Your task to perform on an android device: read, delete, or share a saved page in the chrome app Image 0: 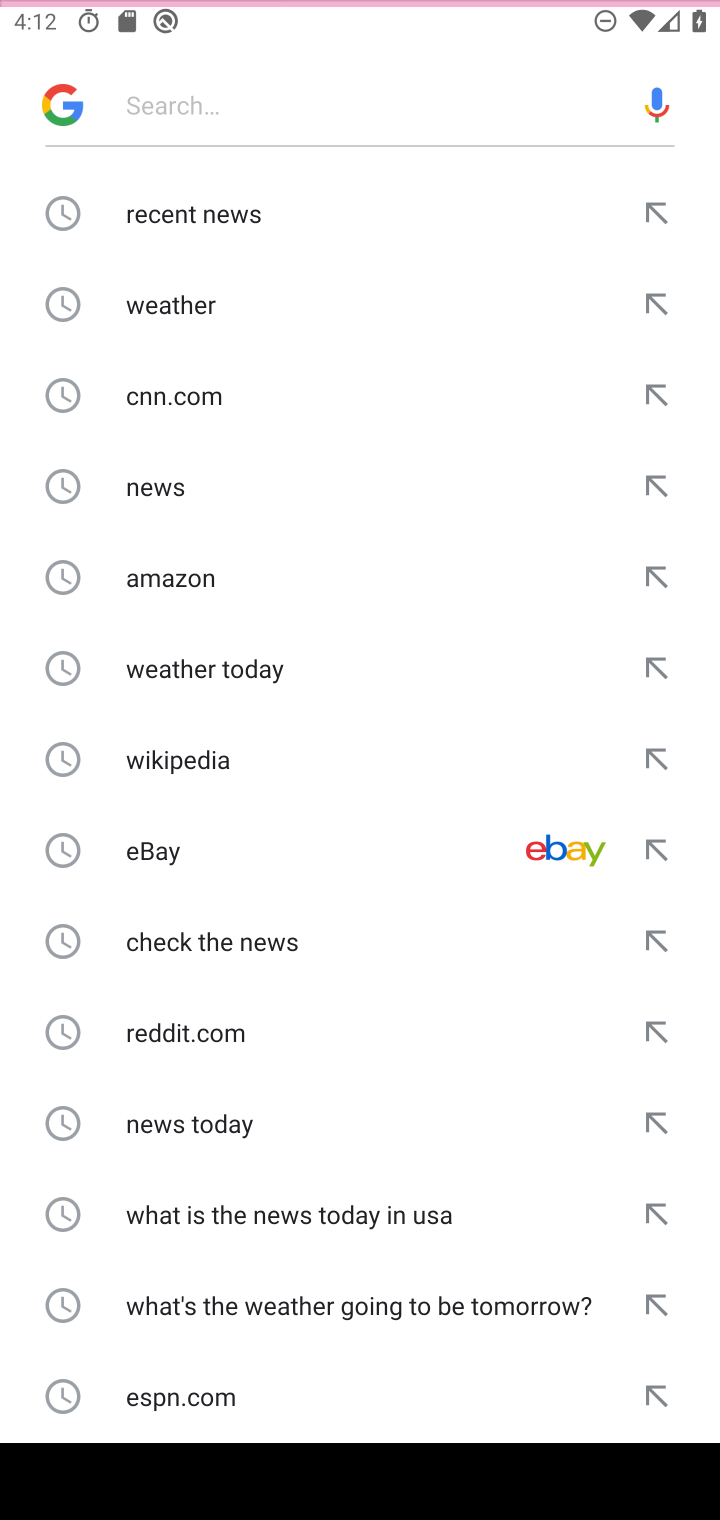
Step 0: press back button
Your task to perform on an android device: read, delete, or share a saved page in the chrome app Image 1: 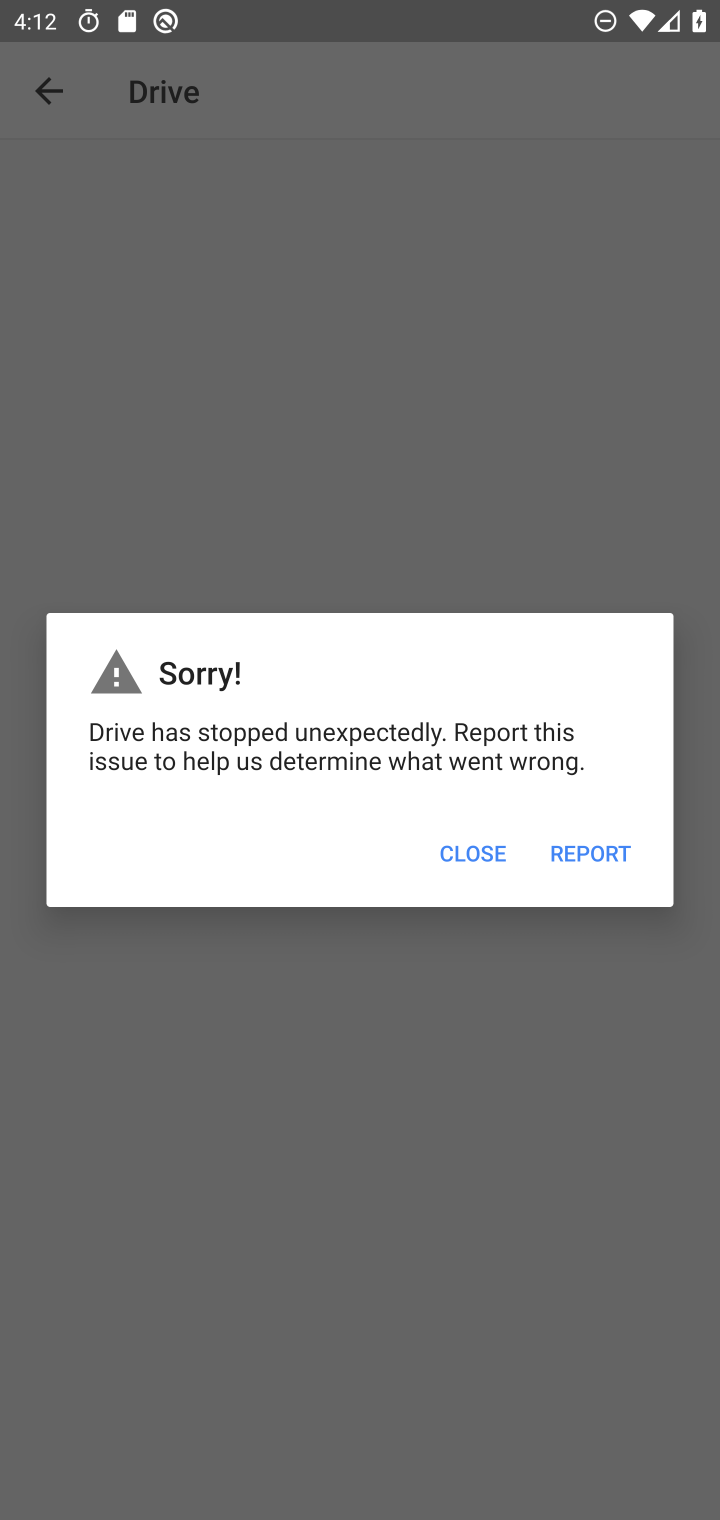
Step 1: press back button
Your task to perform on an android device: read, delete, or share a saved page in the chrome app Image 2: 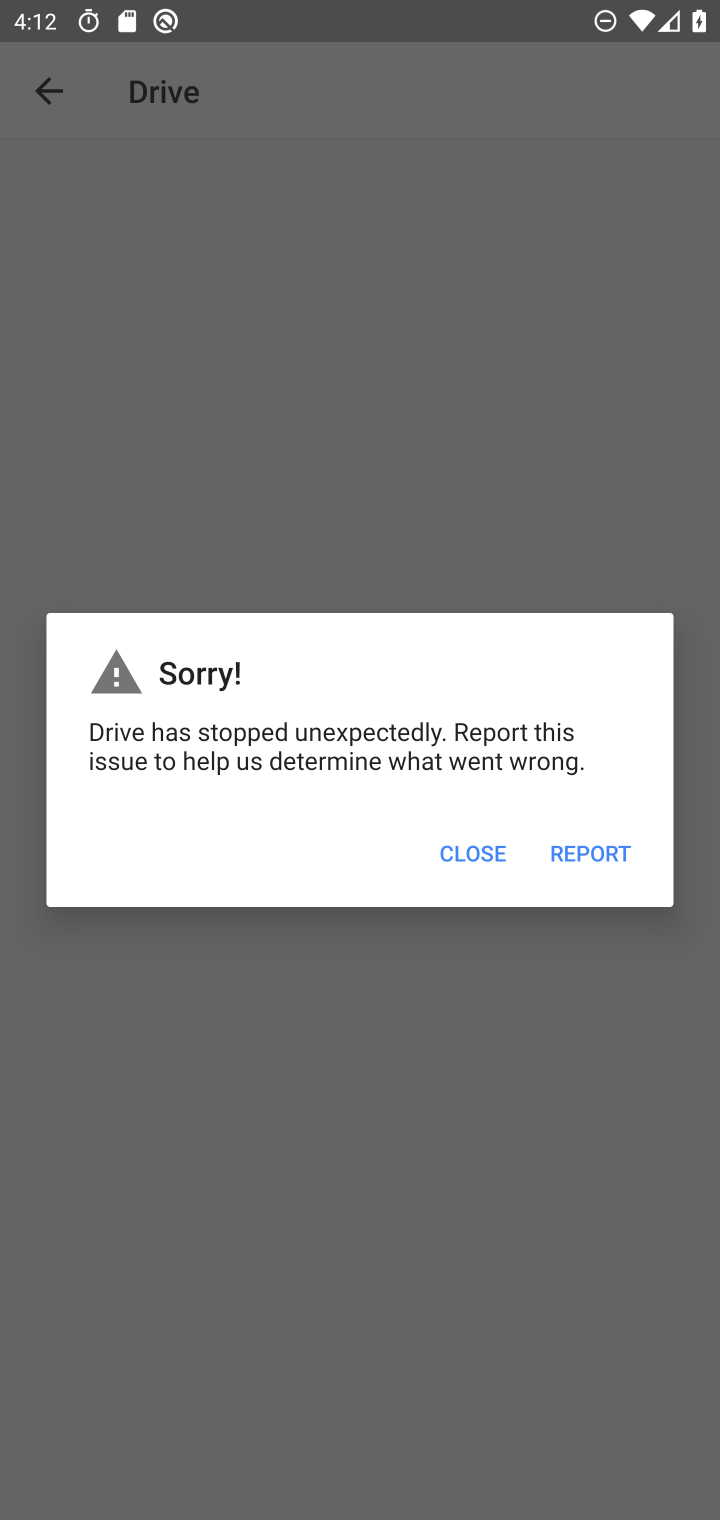
Step 2: press back button
Your task to perform on an android device: read, delete, or share a saved page in the chrome app Image 3: 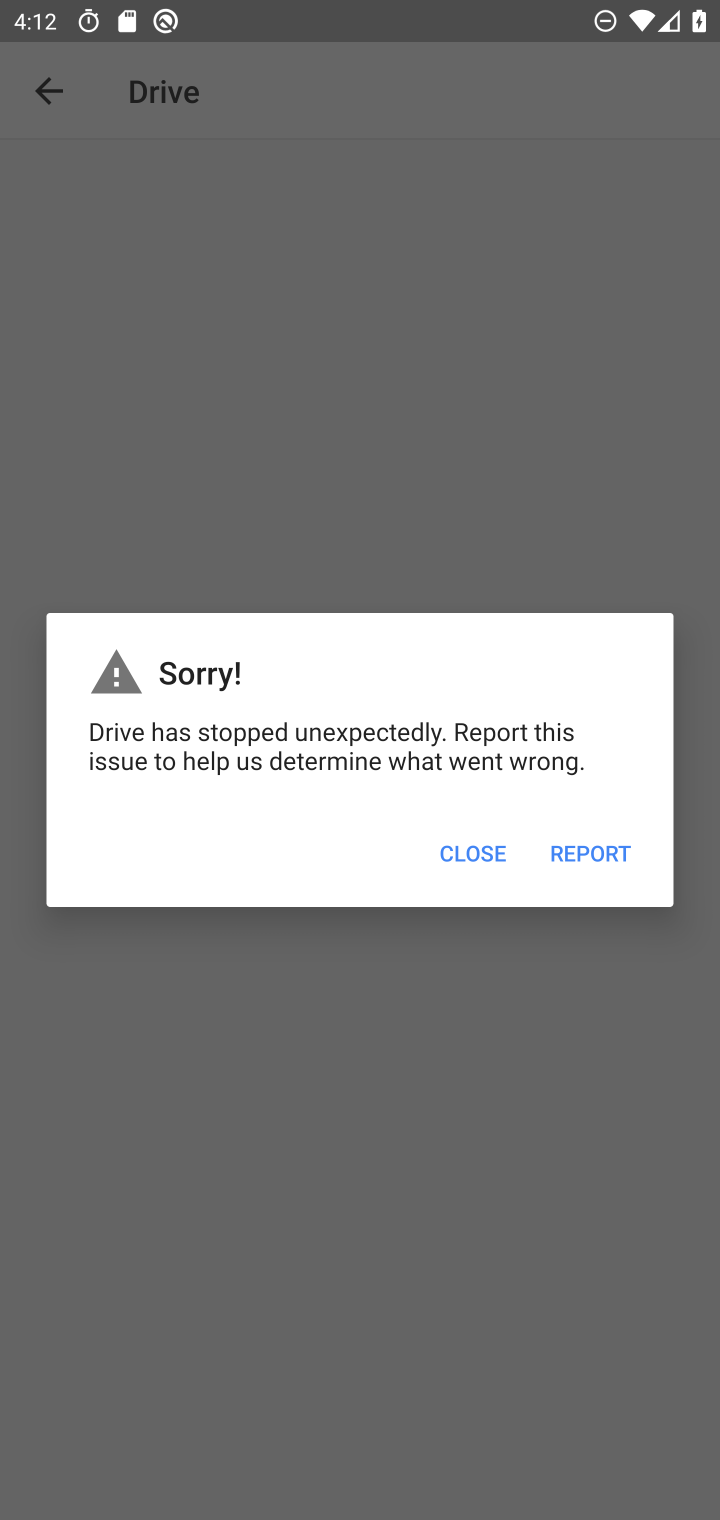
Step 3: click (453, 842)
Your task to perform on an android device: read, delete, or share a saved page in the chrome app Image 4: 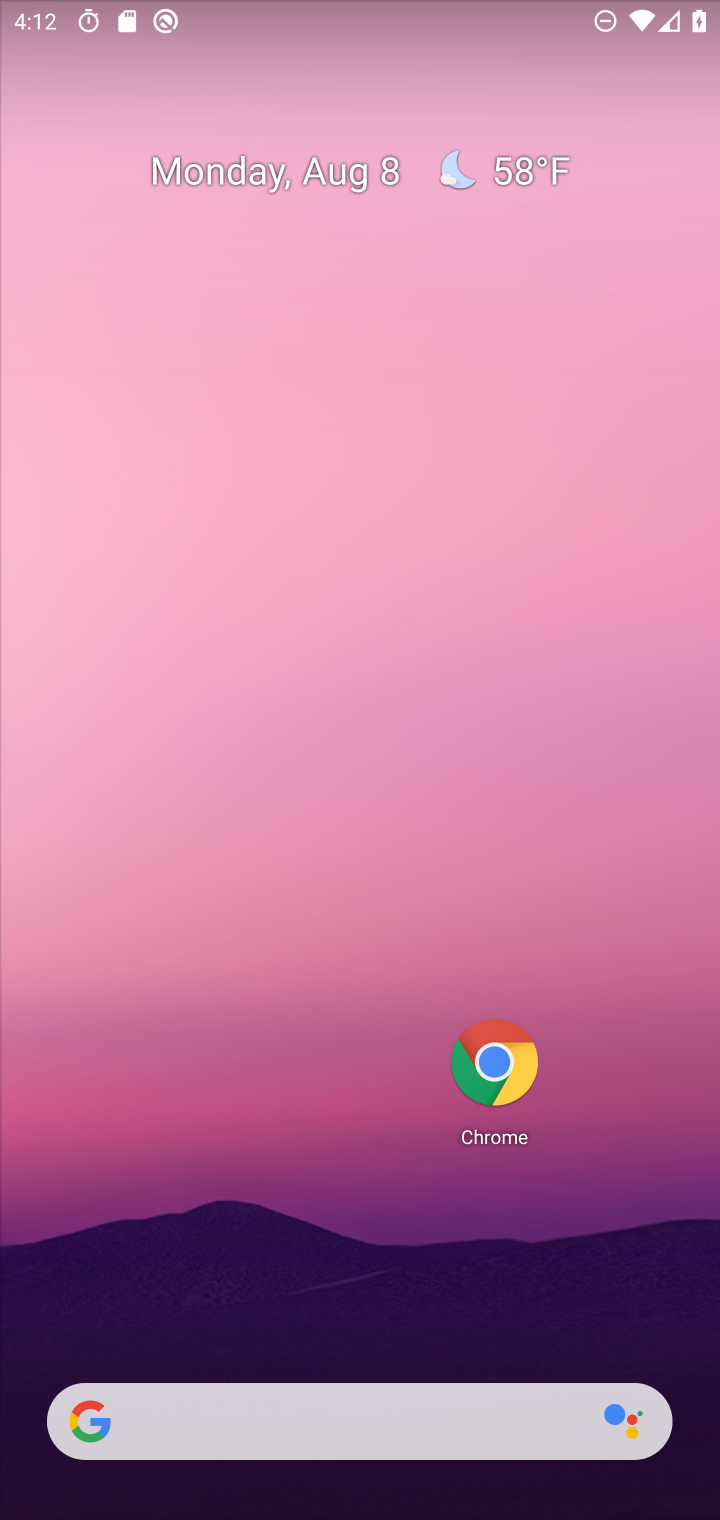
Step 4: click (514, 1048)
Your task to perform on an android device: read, delete, or share a saved page in the chrome app Image 5: 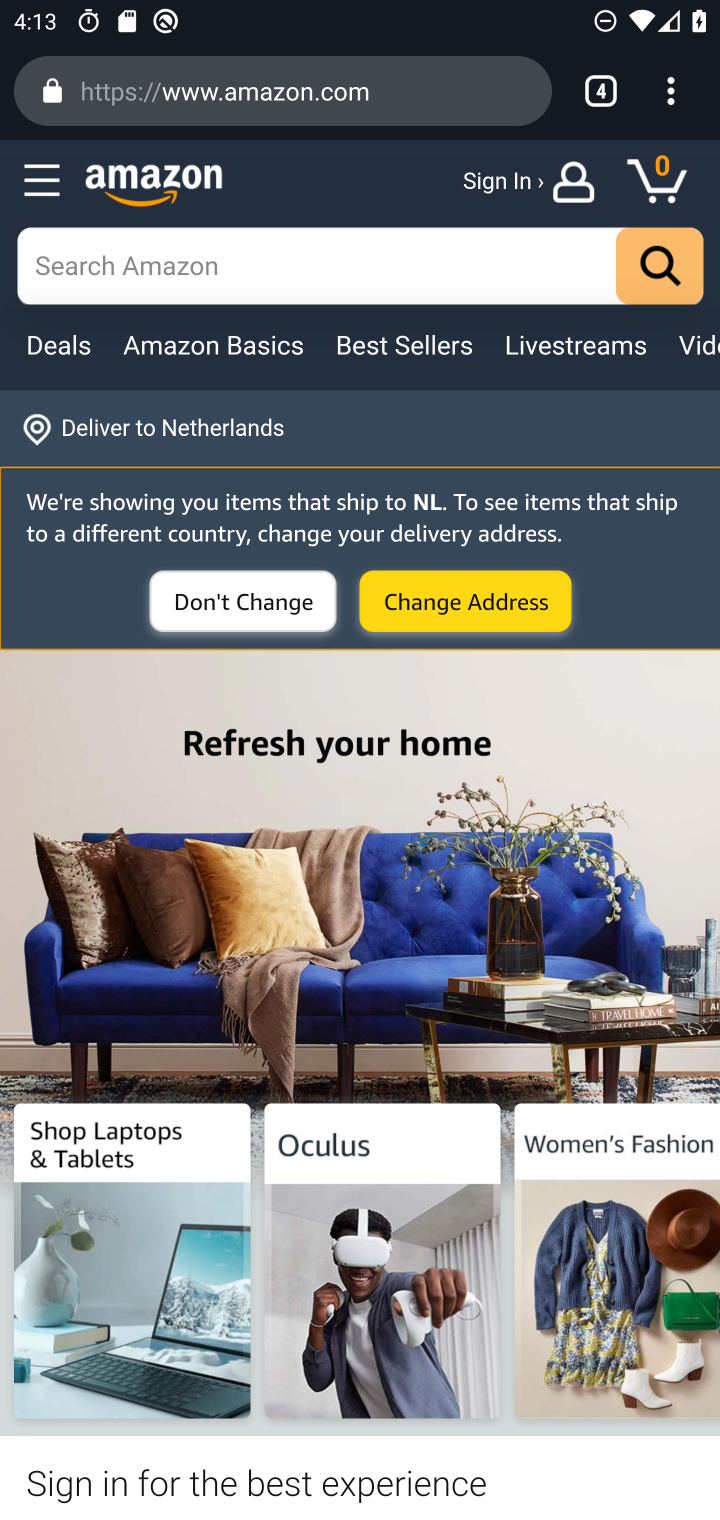
Step 5: task complete